Your task to perform on an android device: clear all cookies in the chrome app Image 0: 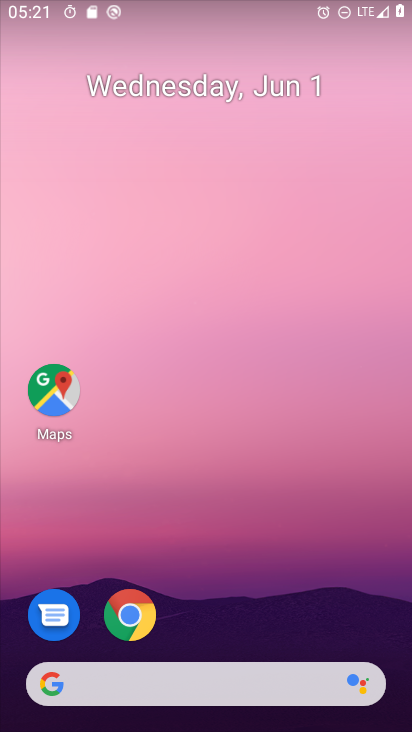
Step 0: drag from (264, 714) to (296, 9)
Your task to perform on an android device: clear all cookies in the chrome app Image 1: 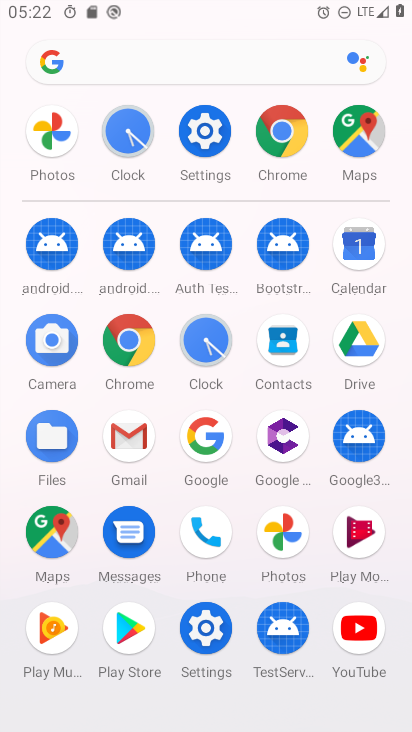
Step 1: click (123, 354)
Your task to perform on an android device: clear all cookies in the chrome app Image 2: 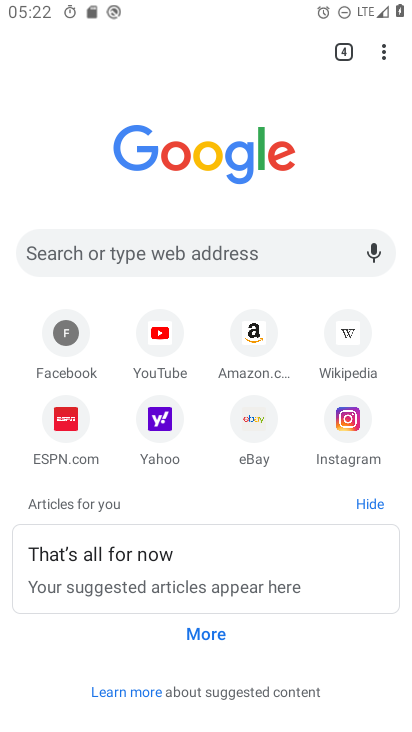
Step 2: task complete